Your task to perform on an android device: turn on the 24-hour format for clock Image 0: 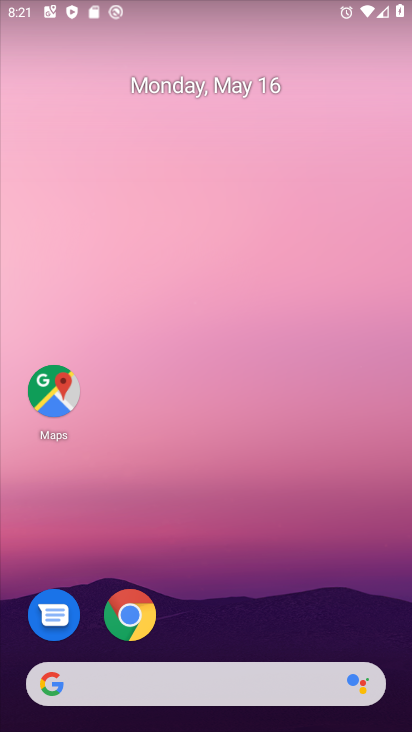
Step 0: drag from (202, 634) to (398, 219)
Your task to perform on an android device: turn on the 24-hour format for clock Image 1: 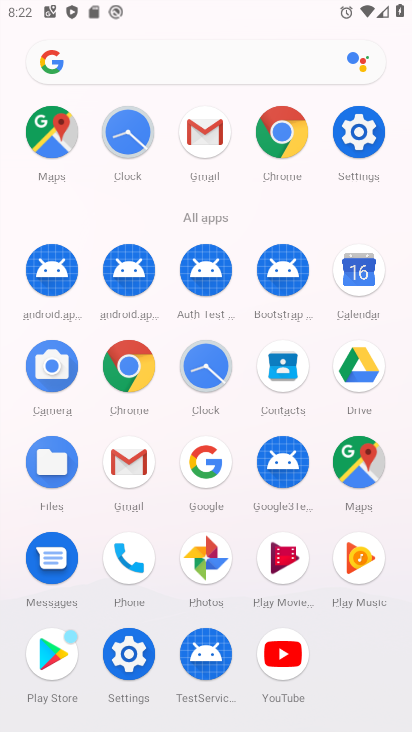
Step 1: click (127, 146)
Your task to perform on an android device: turn on the 24-hour format for clock Image 2: 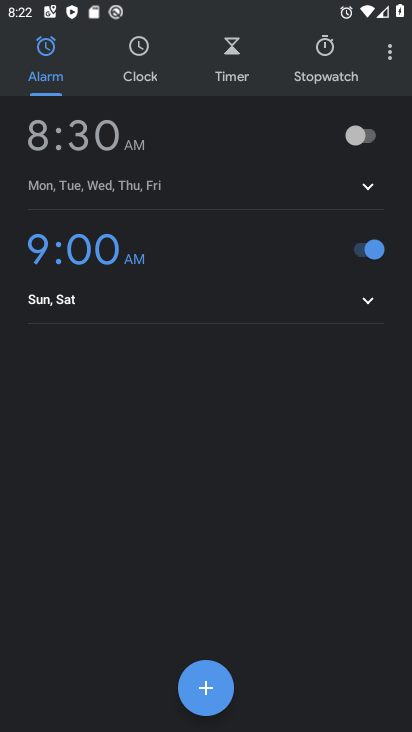
Step 2: click (399, 47)
Your task to perform on an android device: turn on the 24-hour format for clock Image 3: 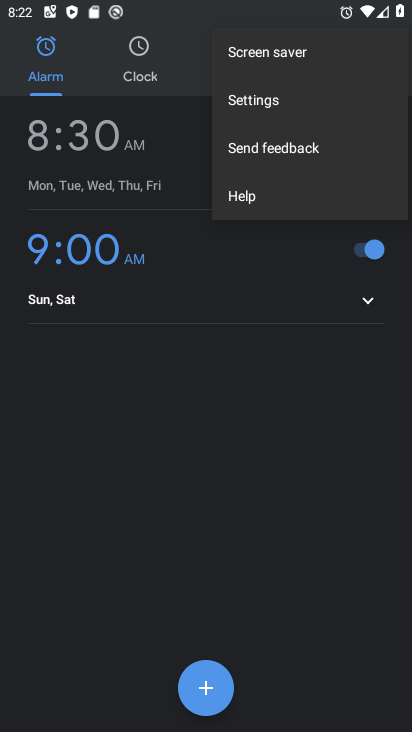
Step 3: click (308, 106)
Your task to perform on an android device: turn on the 24-hour format for clock Image 4: 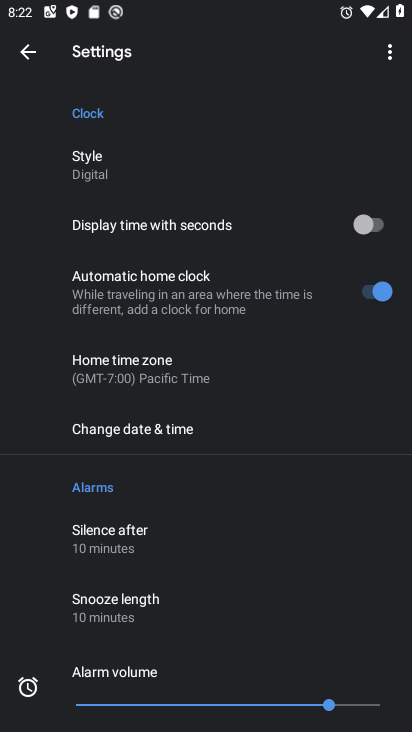
Step 4: drag from (165, 615) to (226, 239)
Your task to perform on an android device: turn on the 24-hour format for clock Image 5: 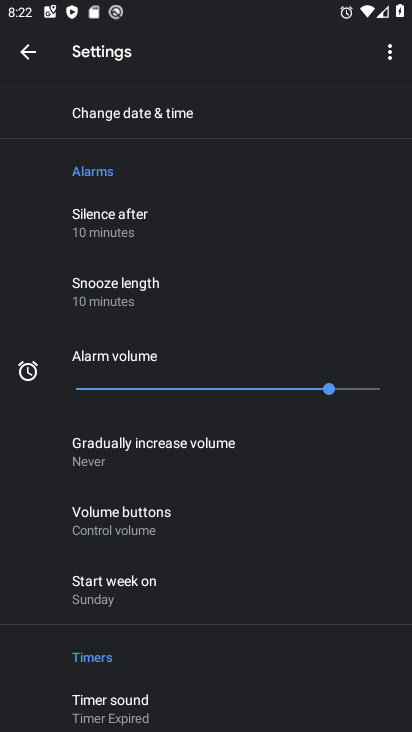
Step 5: drag from (186, 645) to (298, 195)
Your task to perform on an android device: turn on the 24-hour format for clock Image 6: 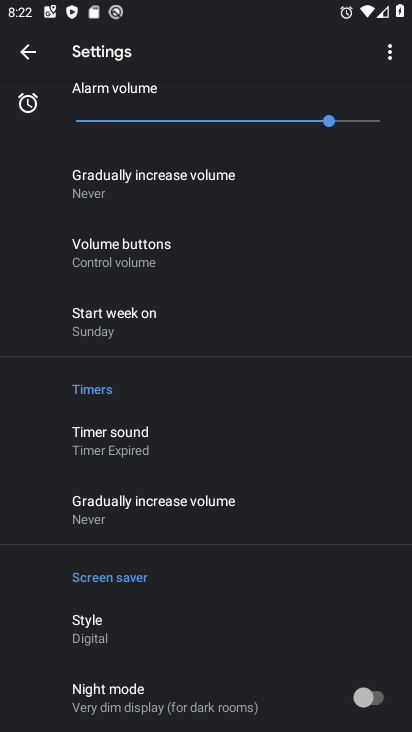
Step 6: drag from (277, 169) to (117, 716)
Your task to perform on an android device: turn on the 24-hour format for clock Image 7: 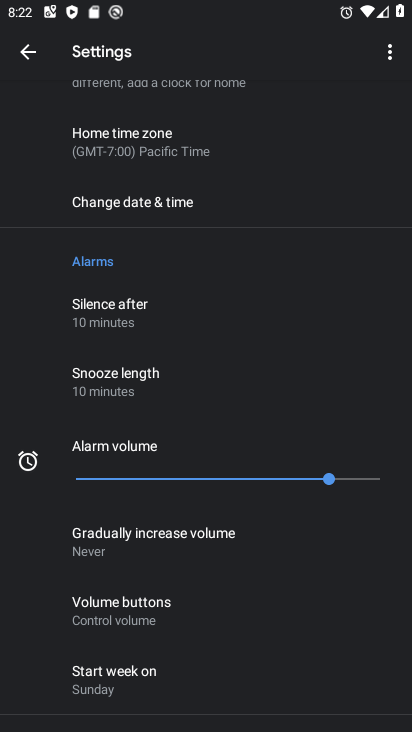
Step 7: click (180, 210)
Your task to perform on an android device: turn on the 24-hour format for clock Image 8: 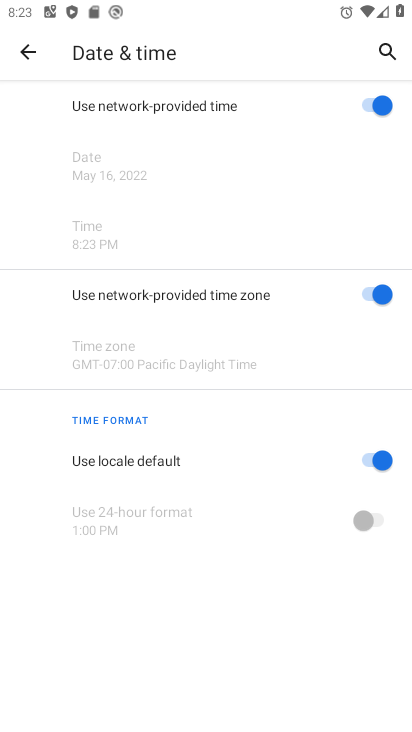
Step 8: click (371, 469)
Your task to perform on an android device: turn on the 24-hour format for clock Image 9: 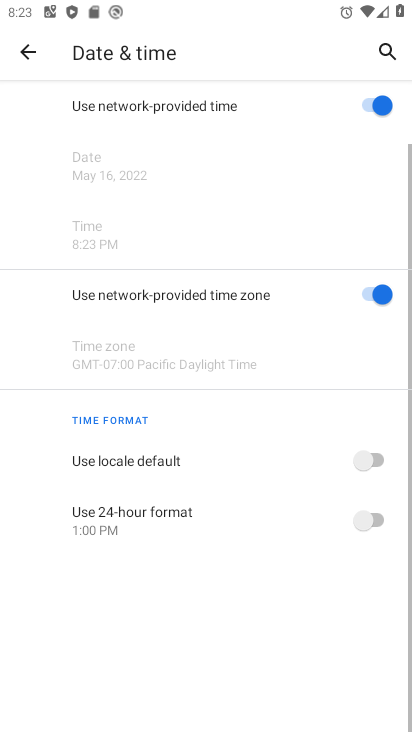
Step 9: click (379, 518)
Your task to perform on an android device: turn on the 24-hour format for clock Image 10: 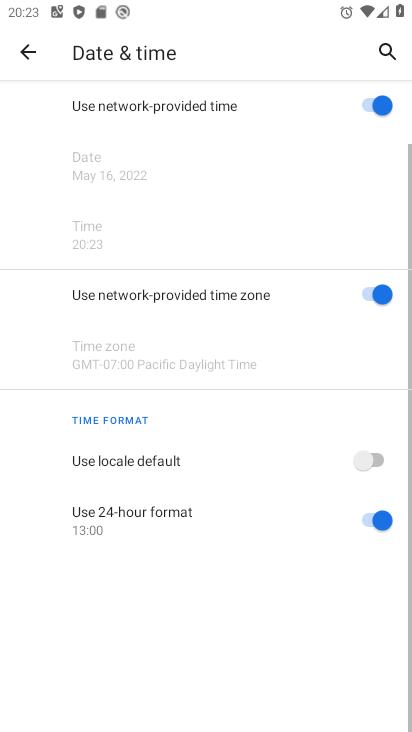
Step 10: task complete